Your task to perform on an android device: open app "Google Keep" (install if not already installed) Image 0: 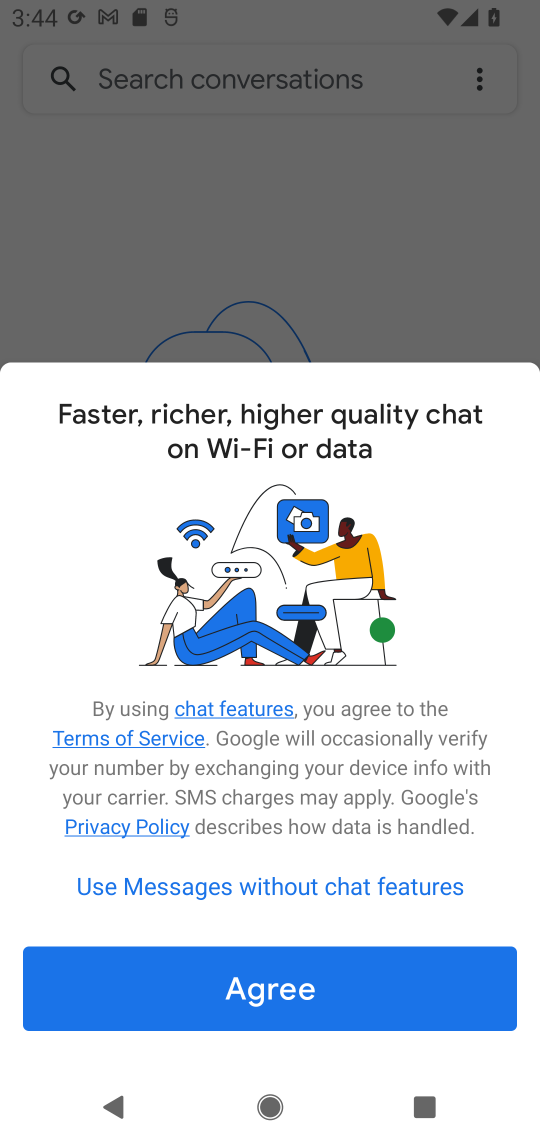
Step 0: press home button
Your task to perform on an android device: open app "Google Keep" (install if not already installed) Image 1: 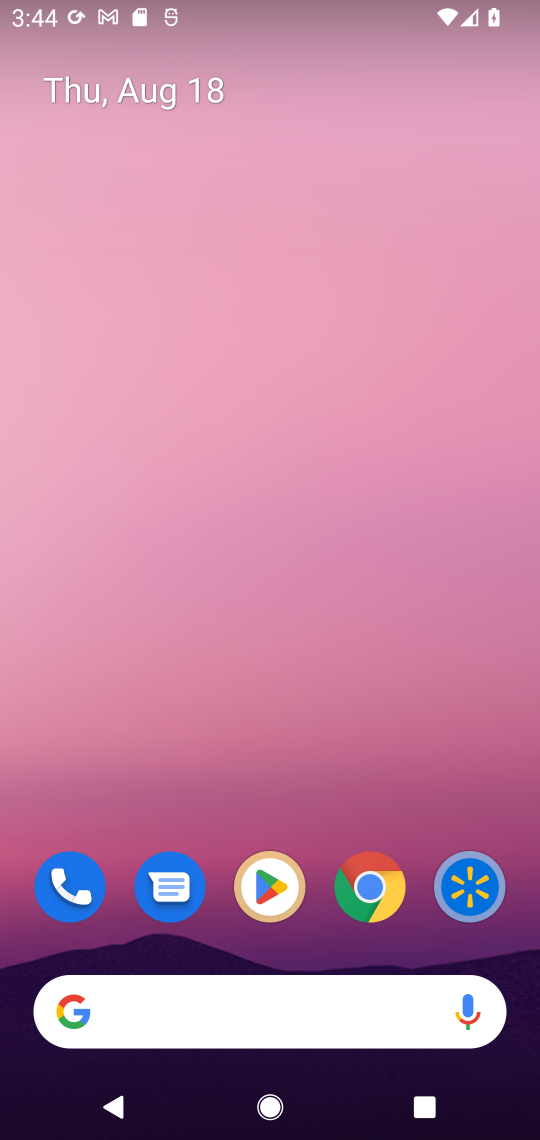
Step 1: click (260, 871)
Your task to perform on an android device: open app "Google Keep" (install if not already installed) Image 2: 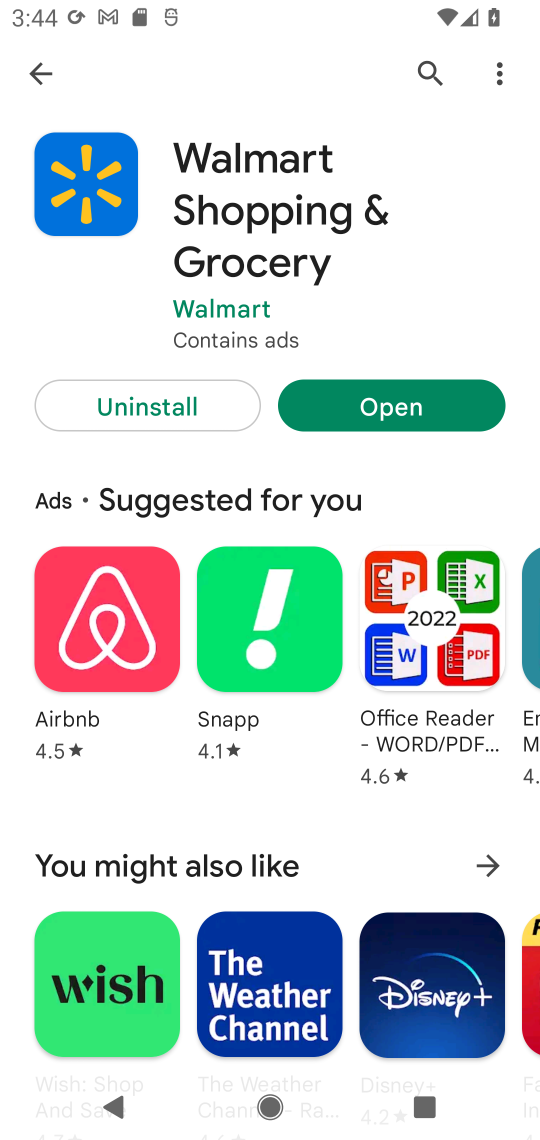
Step 2: click (427, 72)
Your task to perform on an android device: open app "Google Keep" (install if not already installed) Image 3: 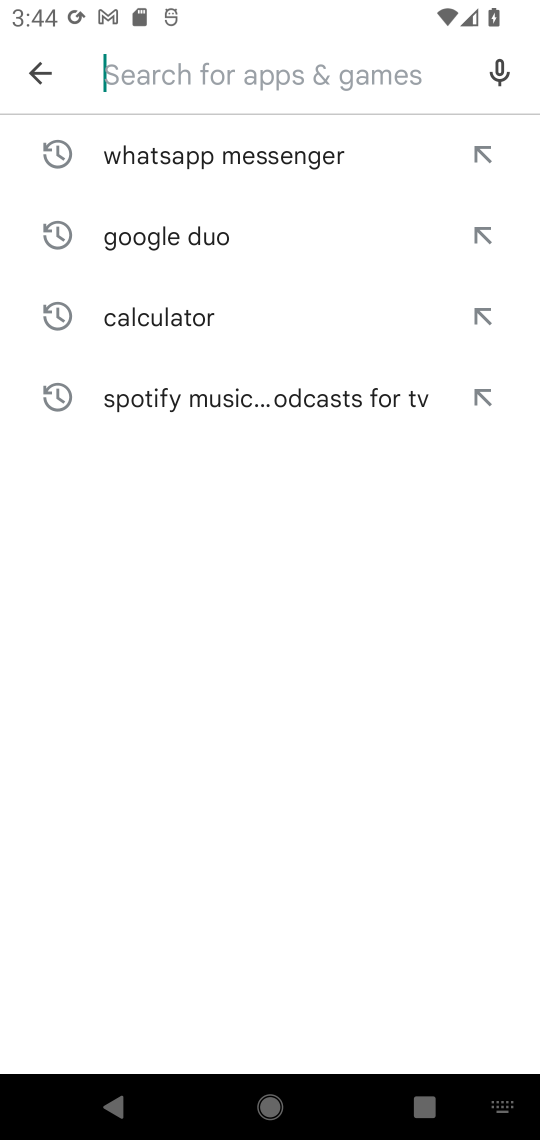
Step 3: type "Google Keep"
Your task to perform on an android device: open app "Google Keep" (install if not already installed) Image 4: 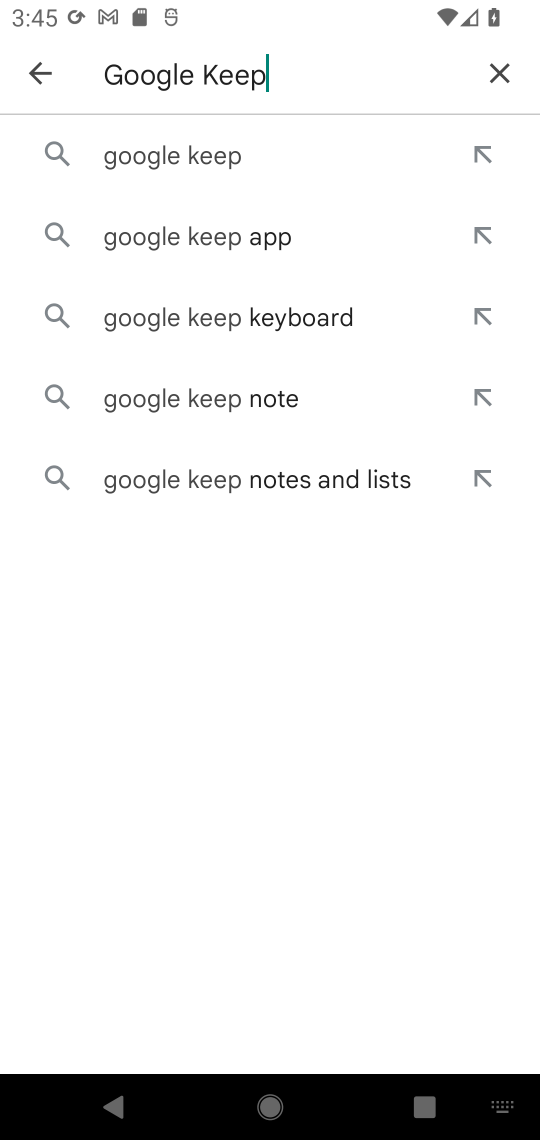
Step 4: click (243, 158)
Your task to perform on an android device: open app "Google Keep" (install if not already installed) Image 5: 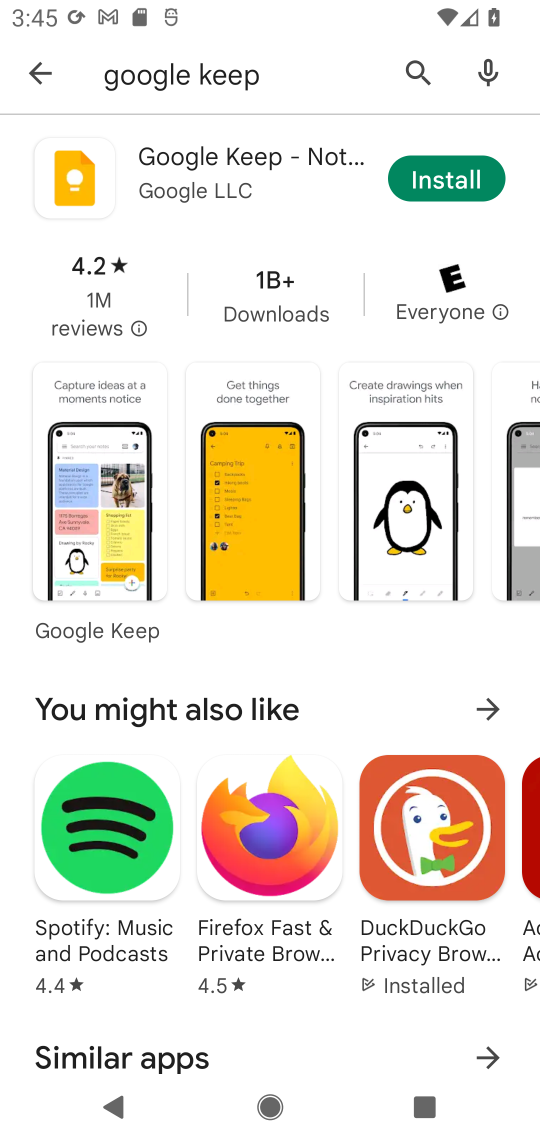
Step 5: click (448, 172)
Your task to perform on an android device: open app "Google Keep" (install if not already installed) Image 6: 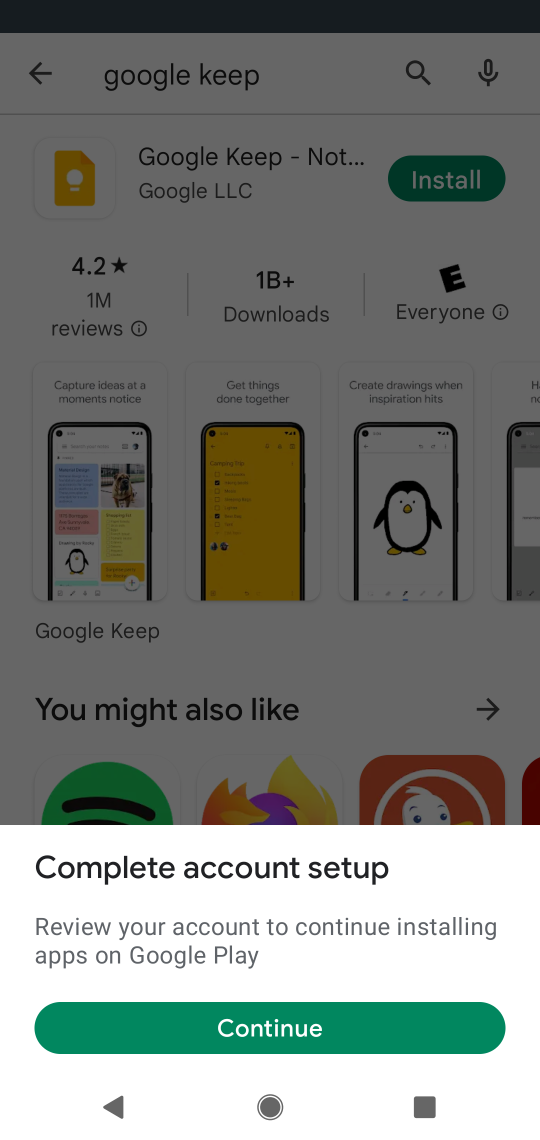
Step 6: click (245, 1038)
Your task to perform on an android device: open app "Google Keep" (install if not already installed) Image 7: 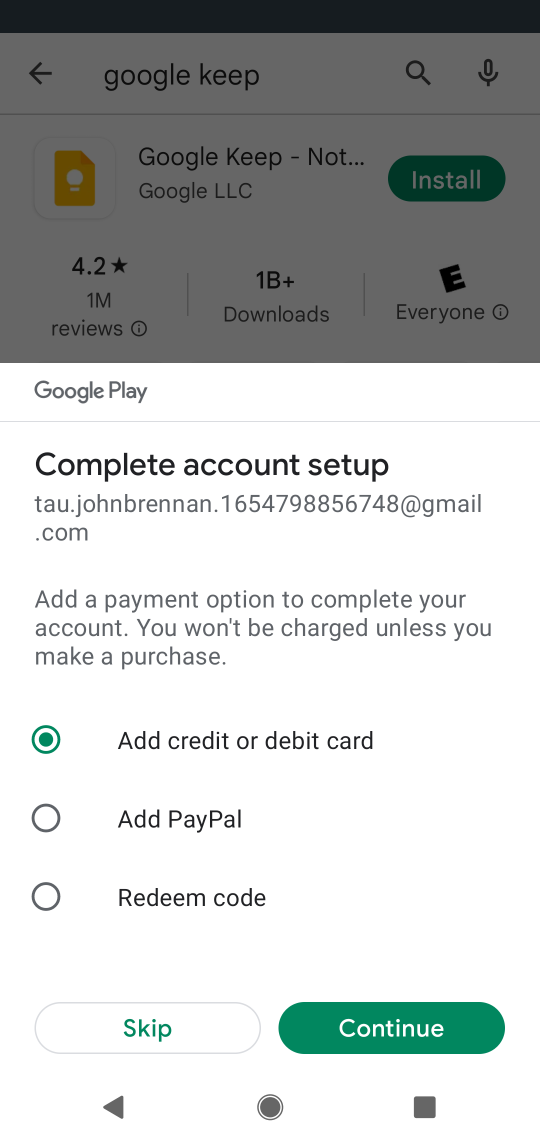
Step 7: click (128, 1032)
Your task to perform on an android device: open app "Google Keep" (install if not already installed) Image 8: 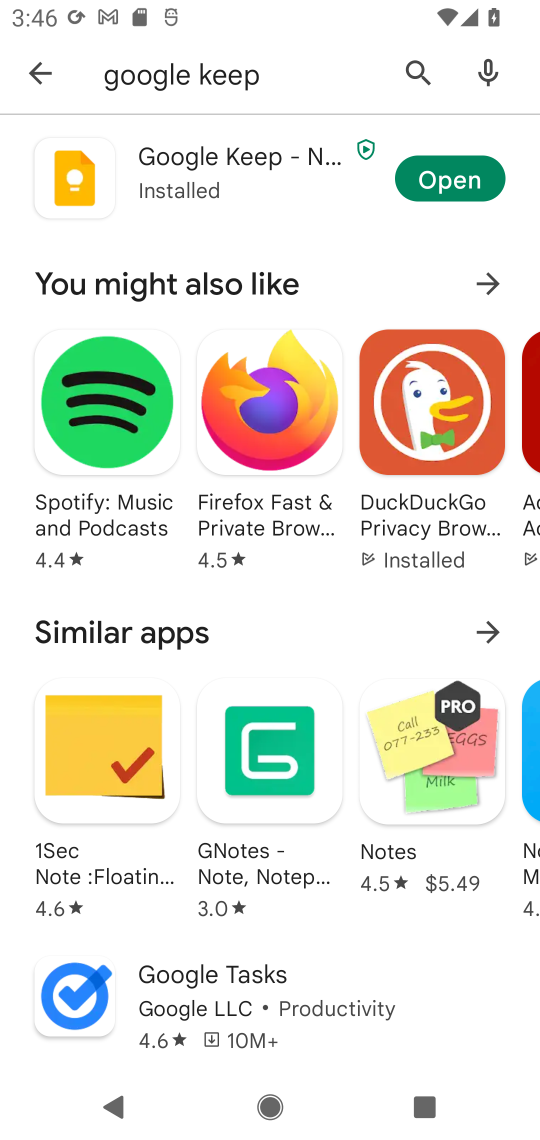
Step 8: click (440, 179)
Your task to perform on an android device: open app "Google Keep" (install if not already installed) Image 9: 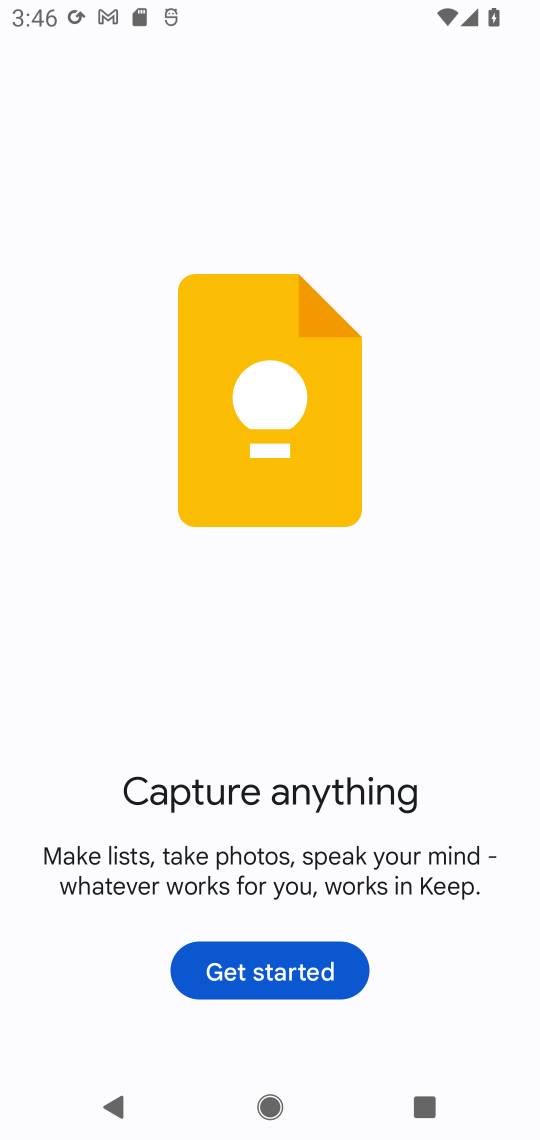
Step 9: click (267, 962)
Your task to perform on an android device: open app "Google Keep" (install if not already installed) Image 10: 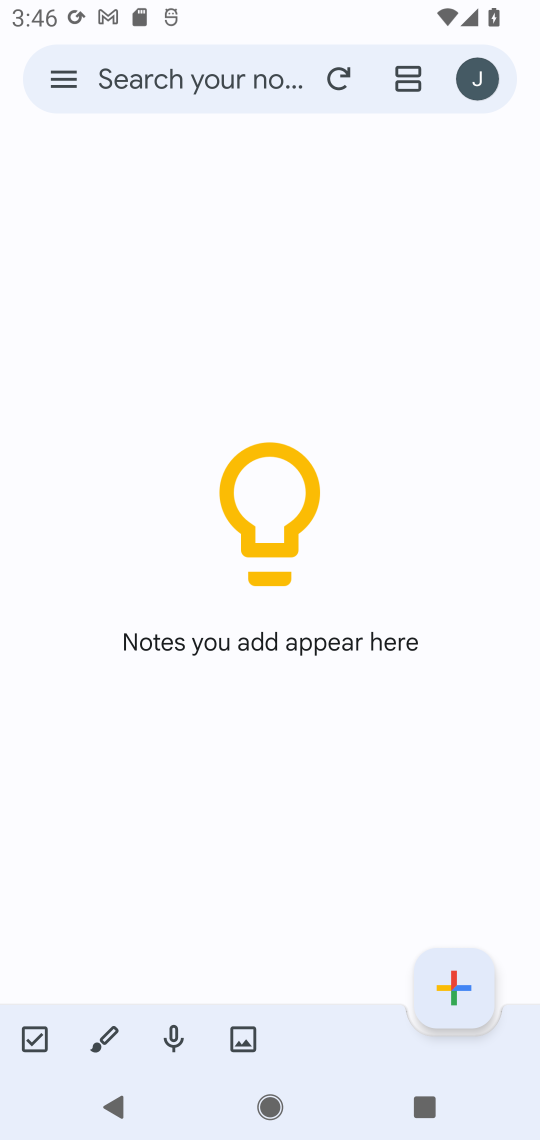
Step 10: task complete